Your task to perform on an android device: Toggle the flashlight Image 0: 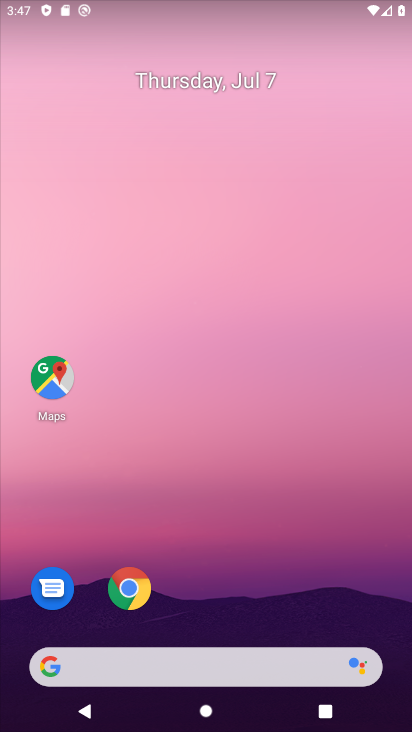
Step 0: press home button
Your task to perform on an android device: Toggle the flashlight Image 1: 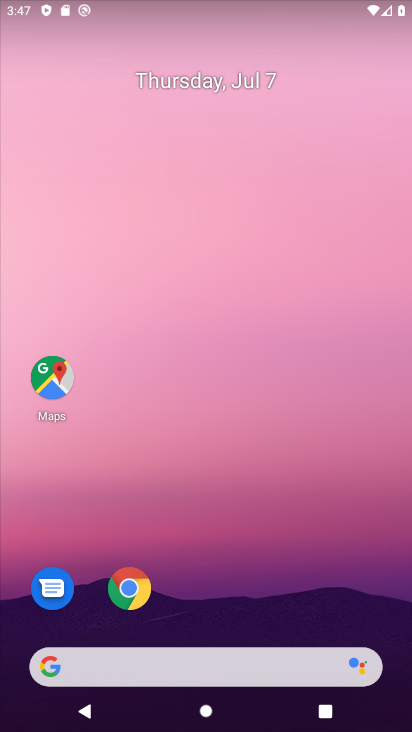
Step 1: task complete